Your task to perform on an android device: Go to Yahoo.com Image 0: 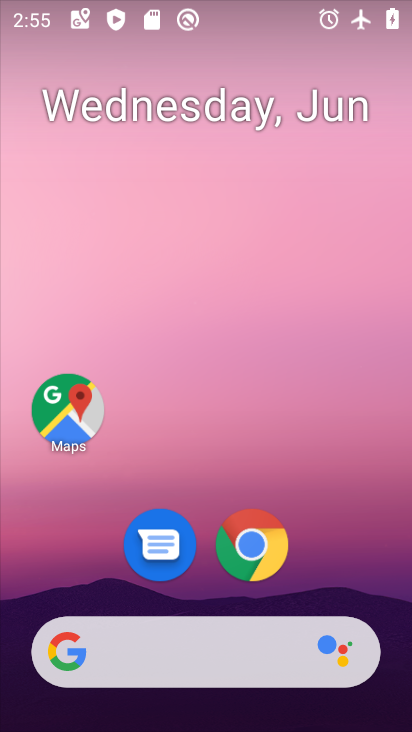
Step 0: click (255, 543)
Your task to perform on an android device: Go to Yahoo.com Image 1: 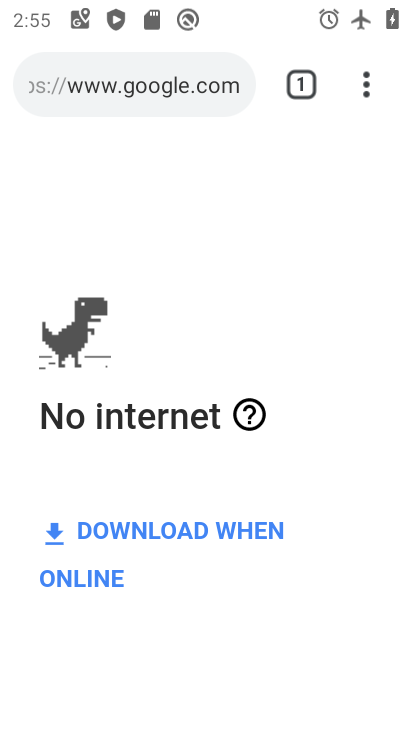
Step 1: click (206, 82)
Your task to perform on an android device: Go to Yahoo.com Image 2: 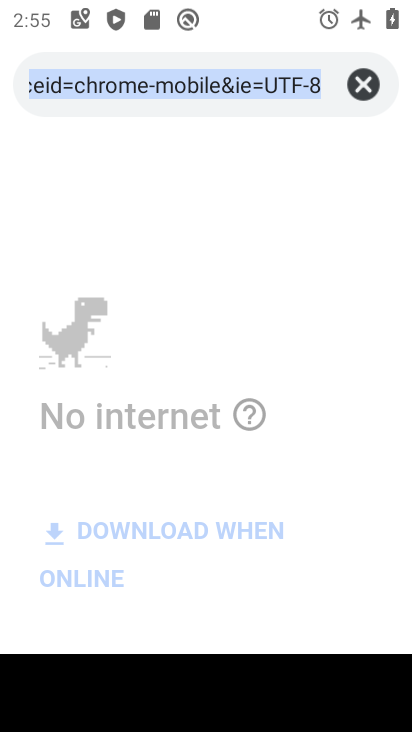
Step 2: type "yahoo.com"
Your task to perform on an android device: Go to Yahoo.com Image 3: 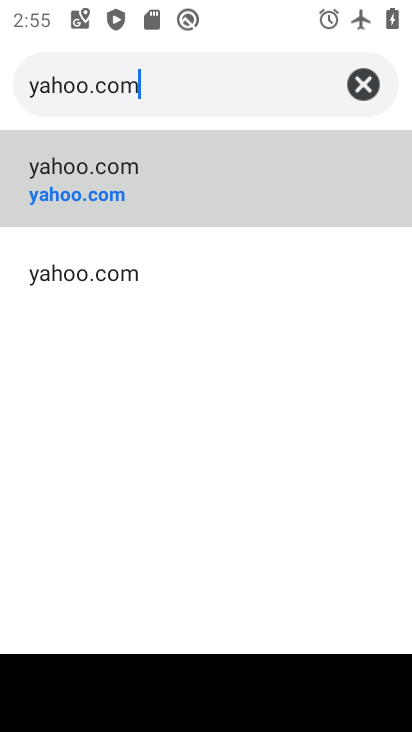
Step 3: click (79, 191)
Your task to perform on an android device: Go to Yahoo.com Image 4: 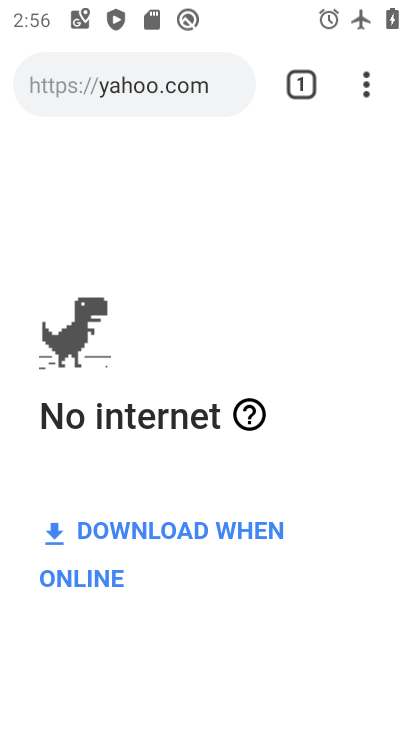
Step 4: task complete